Your task to perform on an android device: check google app version Image 0: 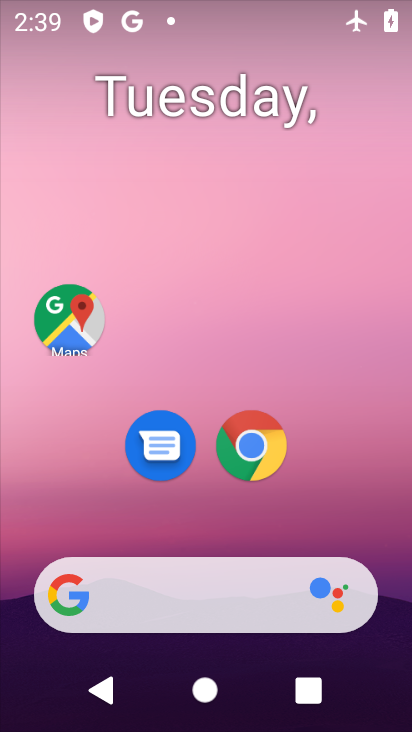
Step 0: drag from (228, 637) to (238, 3)
Your task to perform on an android device: check google app version Image 1: 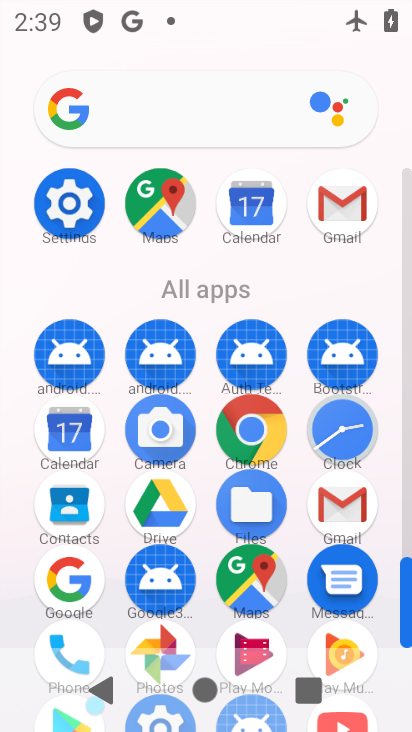
Step 1: click (64, 582)
Your task to perform on an android device: check google app version Image 2: 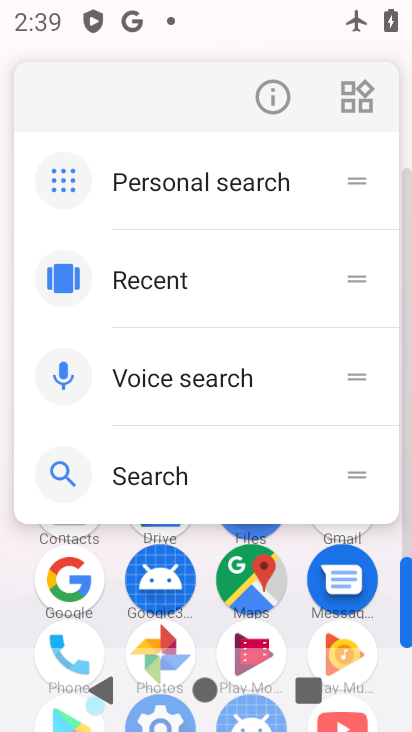
Step 2: click (281, 94)
Your task to perform on an android device: check google app version Image 3: 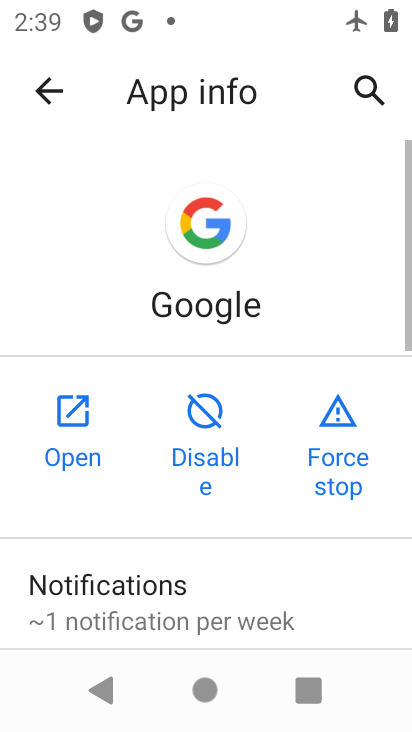
Step 3: drag from (263, 635) to (174, 80)
Your task to perform on an android device: check google app version Image 4: 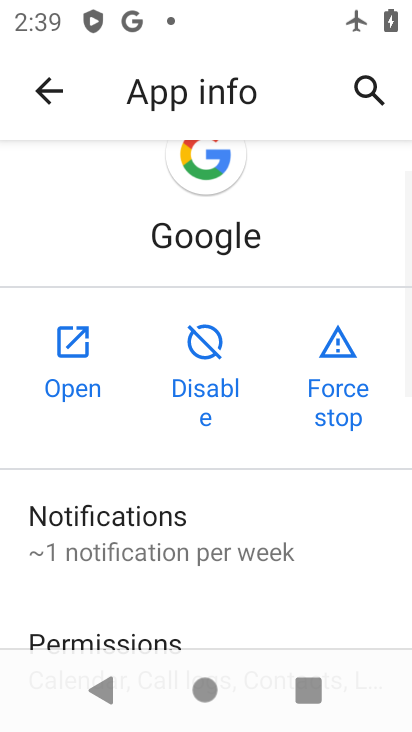
Step 4: drag from (273, 596) to (264, 29)
Your task to perform on an android device: check google app version Image 5: 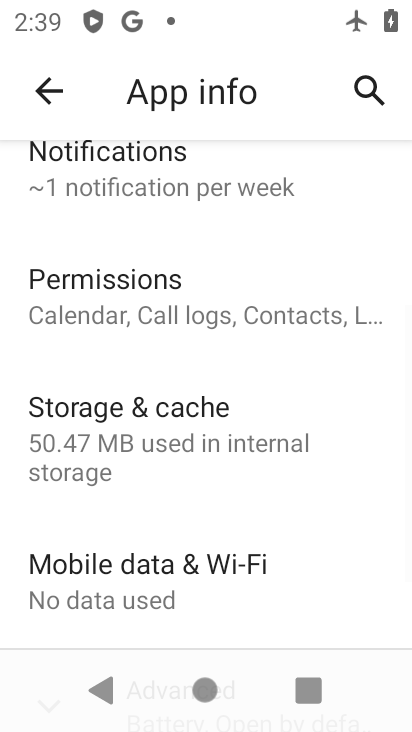
Step 5: drag from (269, 580) to (274, 3)
Your task to perform on an android device: check google app version Image 6: 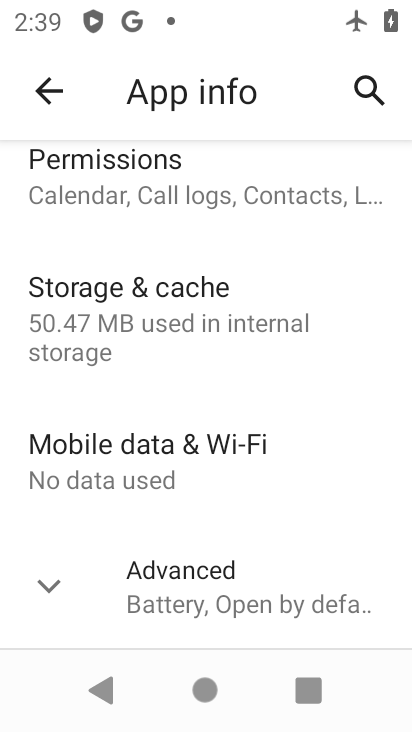
Step 6: drag from (271, 509) to (271, 133)
Your task to perform on an android device: check google app version Image 7: 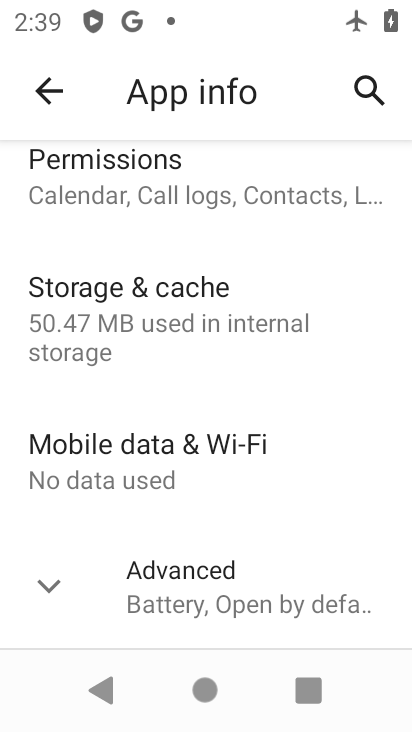
Step 7: click (243, 592)
Your task to perform on an android device: check google app version Image 8: 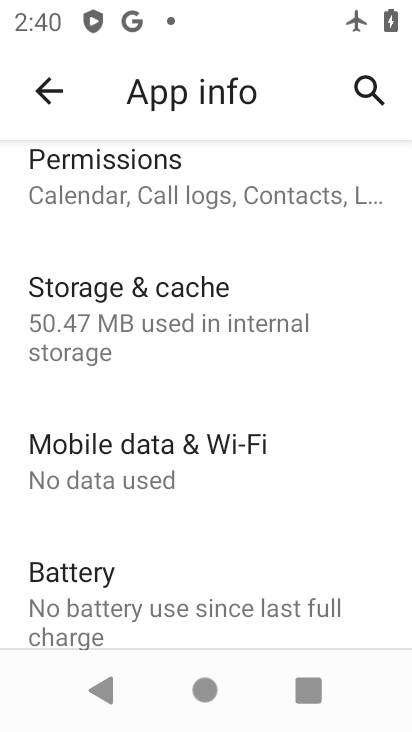
Step 8: task complete